Your task to perform on an android device: turn off location Image 0: 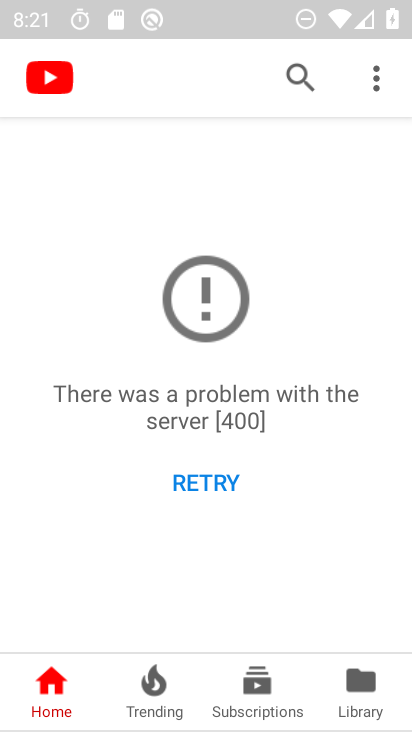
Step 0: press home button
Your task to perform on an android device: turn off location Image 1: 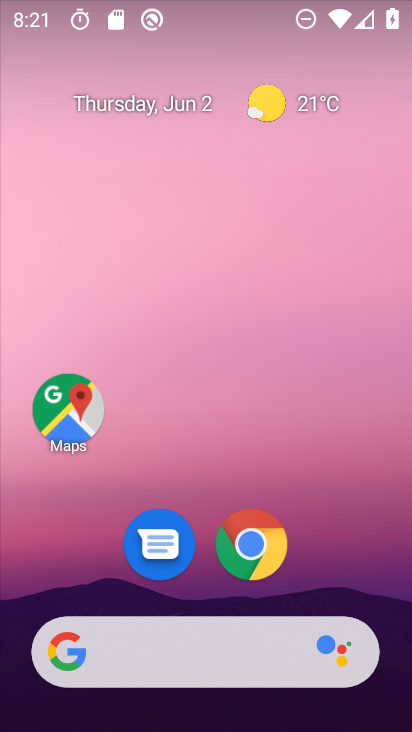
Step 1: drag from (321, 563) to (309, 236)
Your task to perform on an android device: turn off location Image 2: 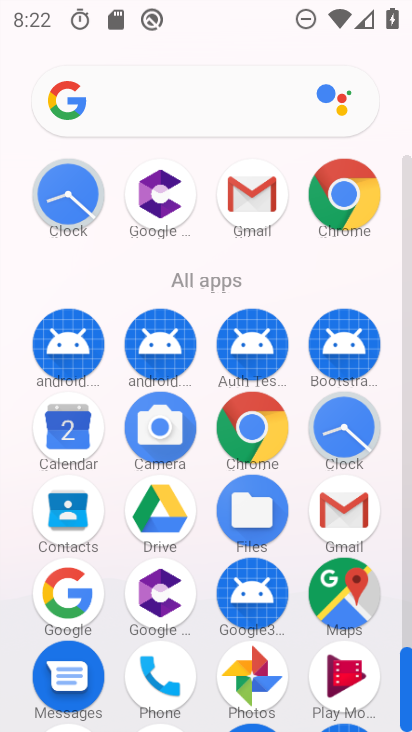
Step 2: drag from (397, 585) to (404, 409)
Your task to perform on an android device: turn off location Image 3: 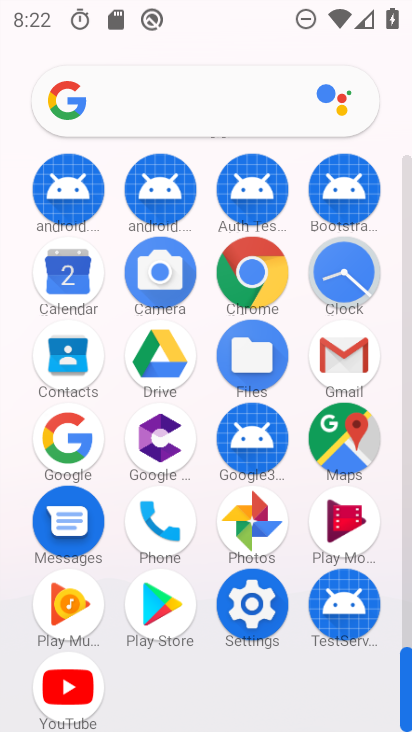
Step 3: click (244, 616)
Your task to perform on an android device: turn off location Image 4: 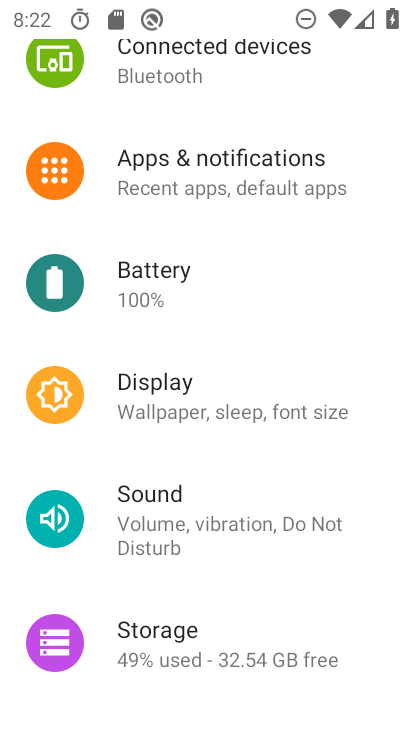
Step 4: drag from (252, 678) to (240, 304)
Your task to perform on an android device: turn off location Image 5: 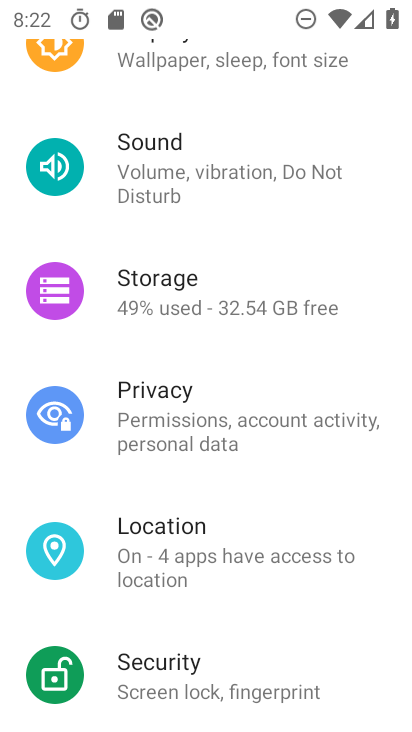
Step 5: click (232, 546)
Your task to perform on an android device: turn off location Image 6: 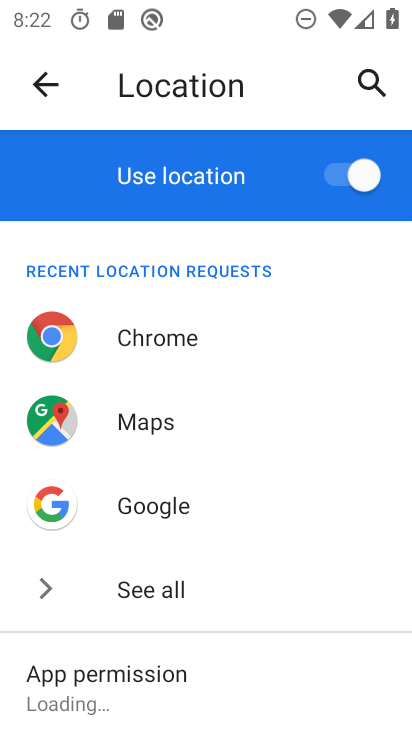
Step 6: click (343, 176)
Your task to perform on an android device: turn off location Image 7: 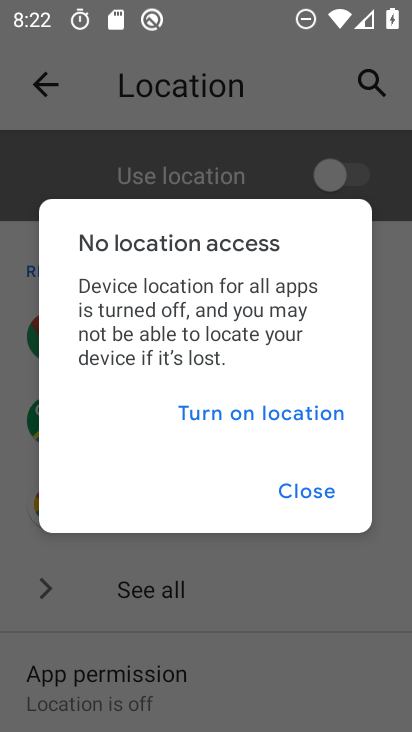
Step 7: task complete